Your task to perform on an android device: Open wifi settings Image 0: 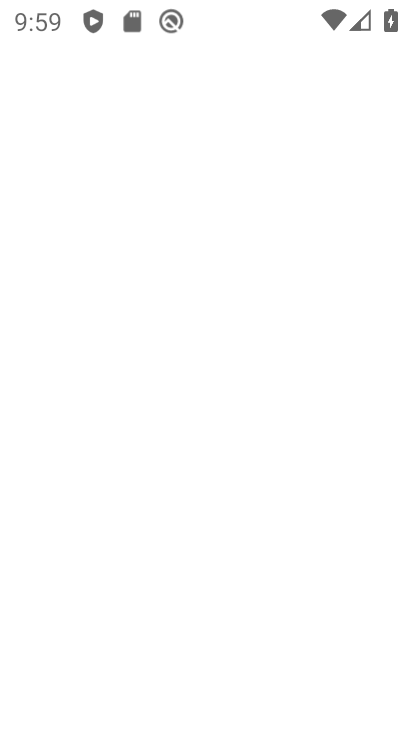
Step 0: click (253, 560)
Your task to perform on an android device: Open wifi settings Image 1: 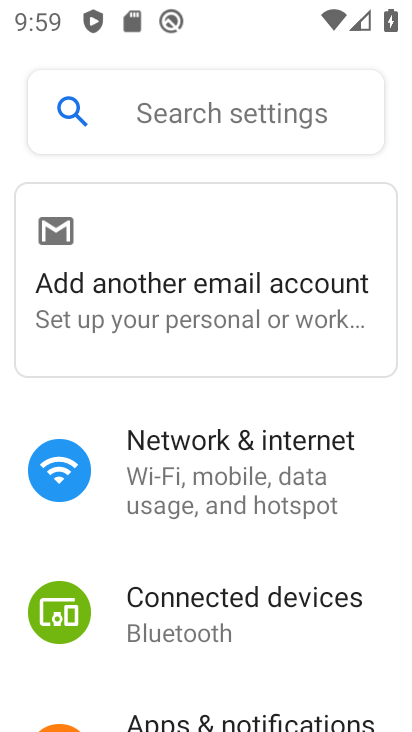
Step 1: click (280, 482)
Your task to perform on an android device: Open wifi settings Image 2: 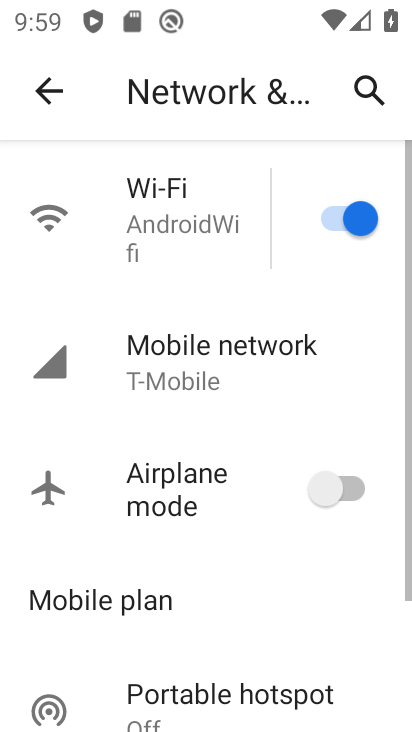
Step 2: click (207, 261)
Your task to perform on an android device: Open wifi settings Image 3: 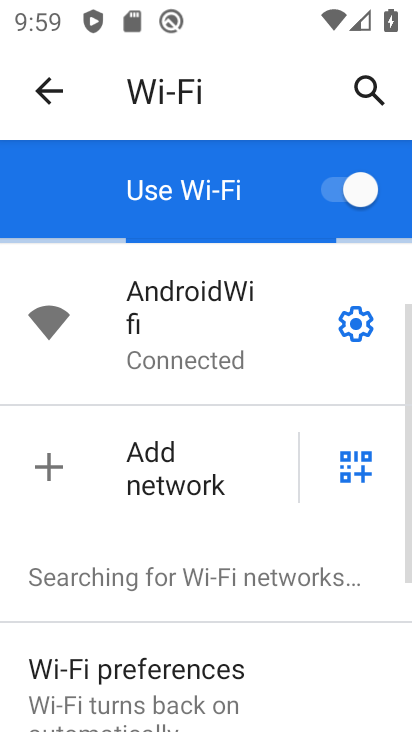
Step 3: task complete